Your task to perform on an android device: turn on translation in the chrome app Image 0: 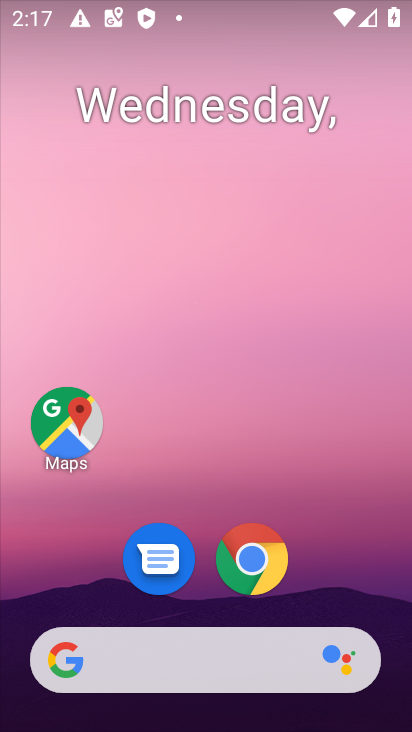
Step 0: click (257, 564)
Your task to perform on an android device: turn on translation in the chrome app Image 1: 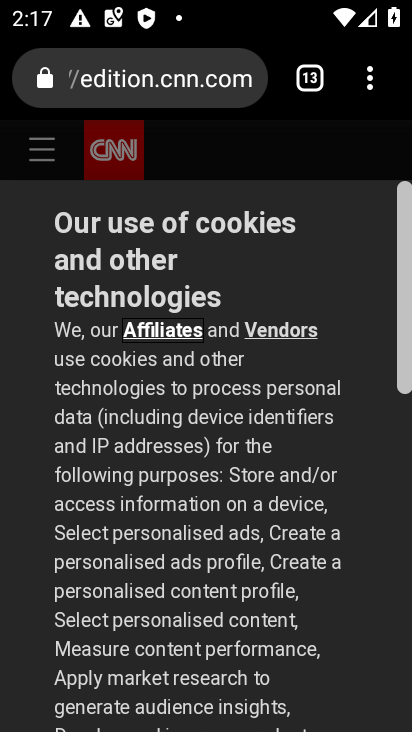
Step 1: click (371, 97)
Your task to perform on an android device: turn on translation in the chrome app Image 2: 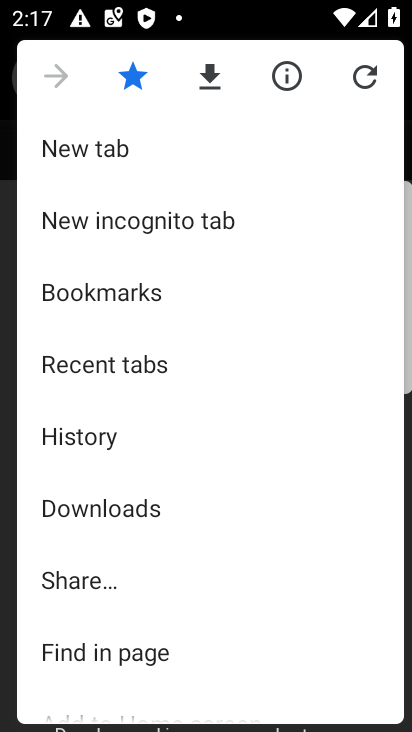
Step 2: drag from (116, 591) to (109, 307)
Your task to perform on an android device: turn on translation in the chrome app Image 3: 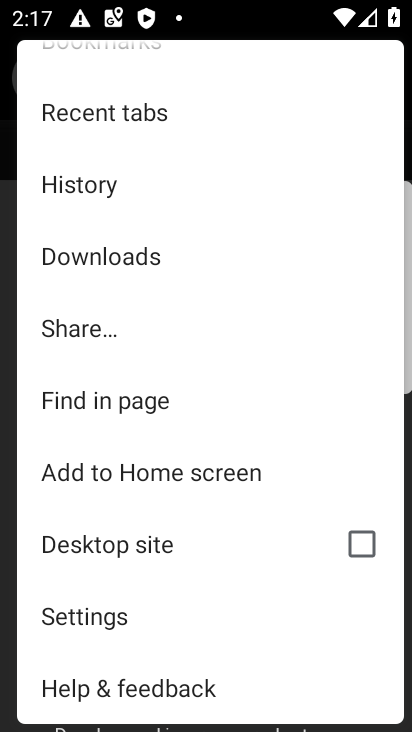
Step 3: click (74, 610)
Your task to perform on an android device: turn on translation in the chrome app Image 4: 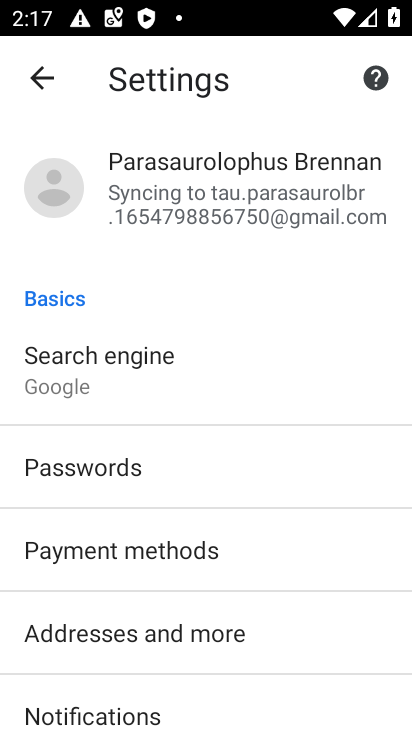
Step 4: drag from (144, 669) to (133, 467)
Your task to perform on an android device: turn on translation in the chrome app Image 5: 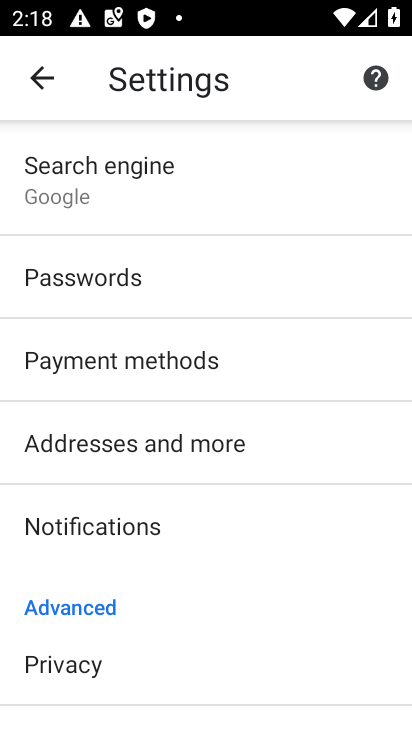
Step 5: drag from (83, 643) to (92, 320)
Your task to perform on an android device: turn on translation in the chrome app Image 6: 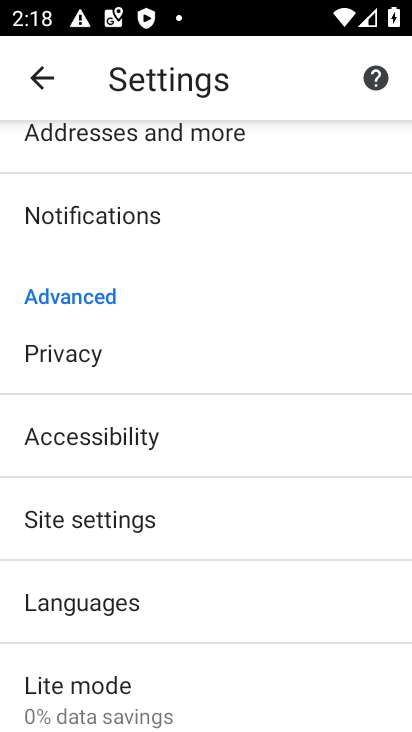
Step 6: click (87, 597)
Your task to perform on an android device: turn on translation in the chrome app Image 7: 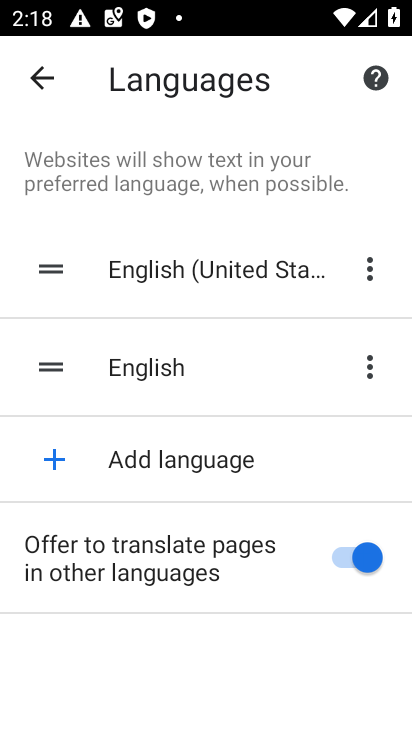
Step 7: task complete